Your task to perform on an android device: Check the weather Image 0: 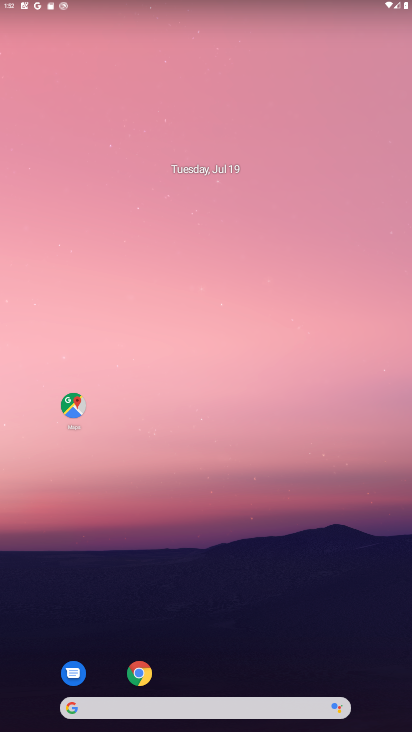
Step 0: click (160, 711)
Your task to perform on an android device: Check the weather Image 1: 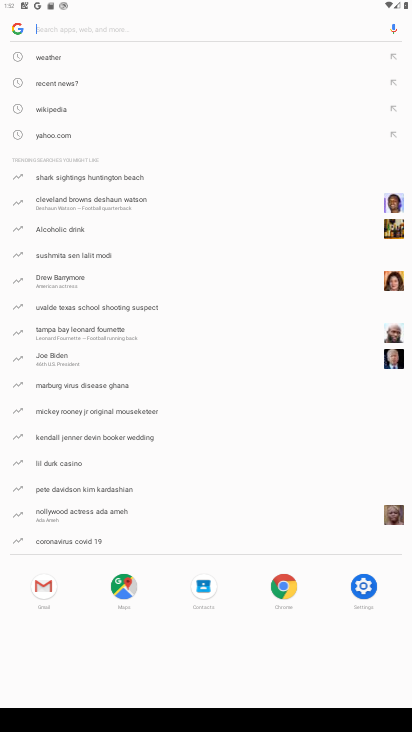
Step 1: click (104, 52)
Your task to perform on an android device: Check the weather Image 2: 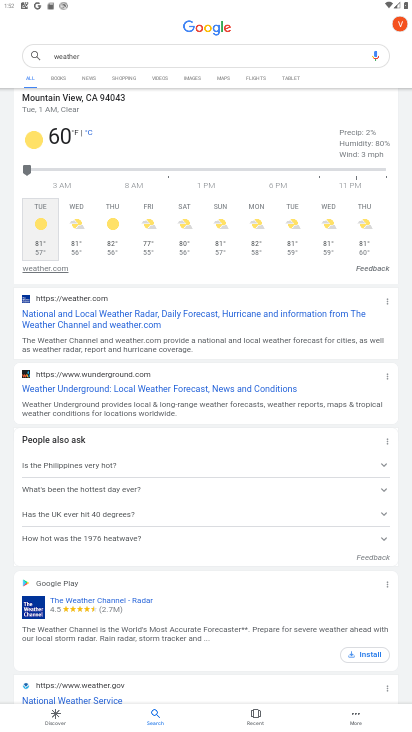
Step 2: task complete